Your task to perform on an android device: Go to notification settings Image 0: 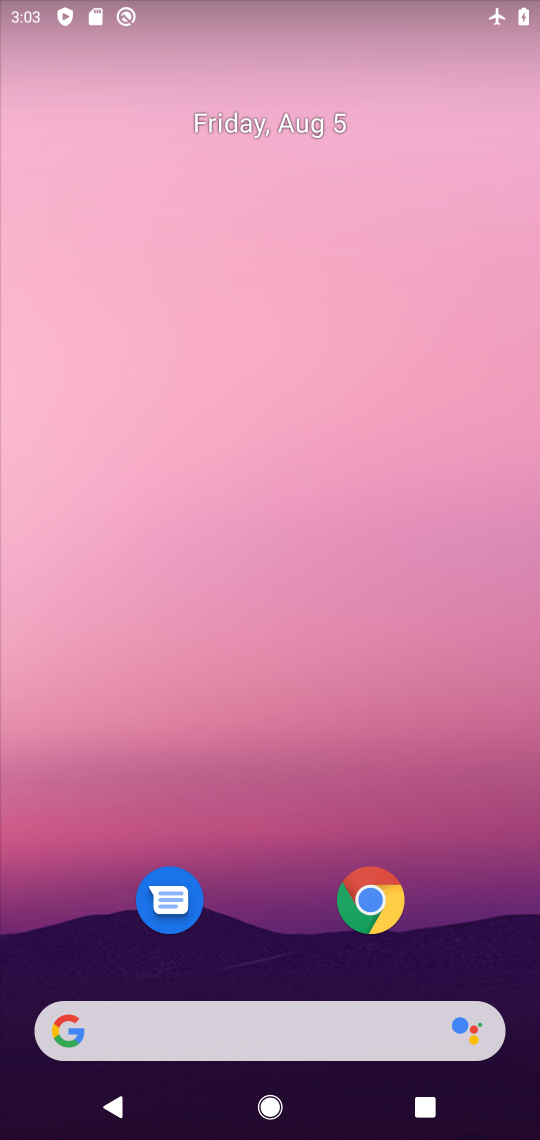
Step 0: press home button
Your task to perform on an android device: Go to notification settings Image 1: 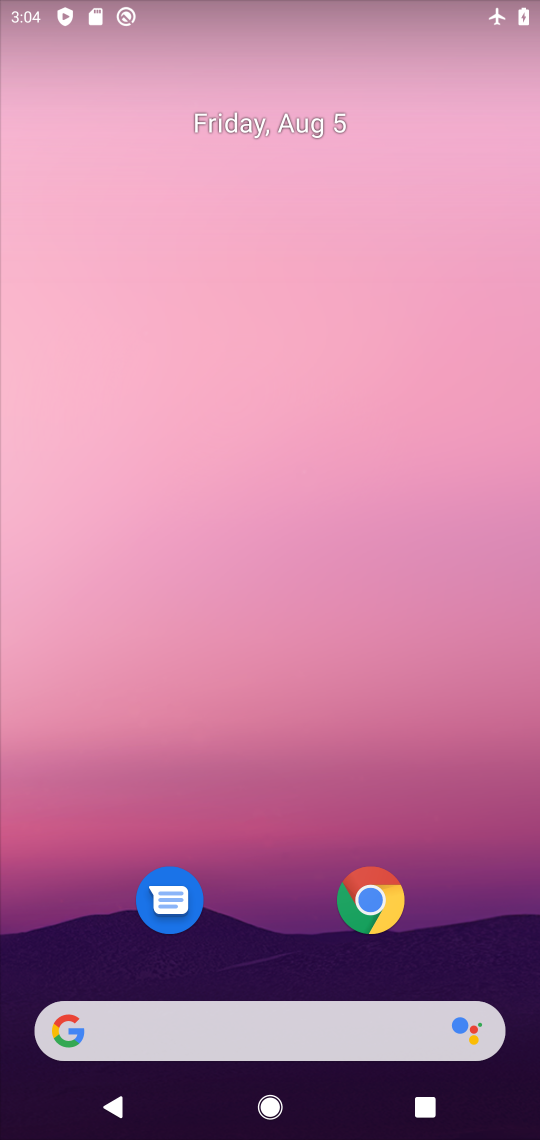
Step 1: drag from (279, 597) to (345, 14)
Your task to perform on an android device: Go to notification settings Image 2: 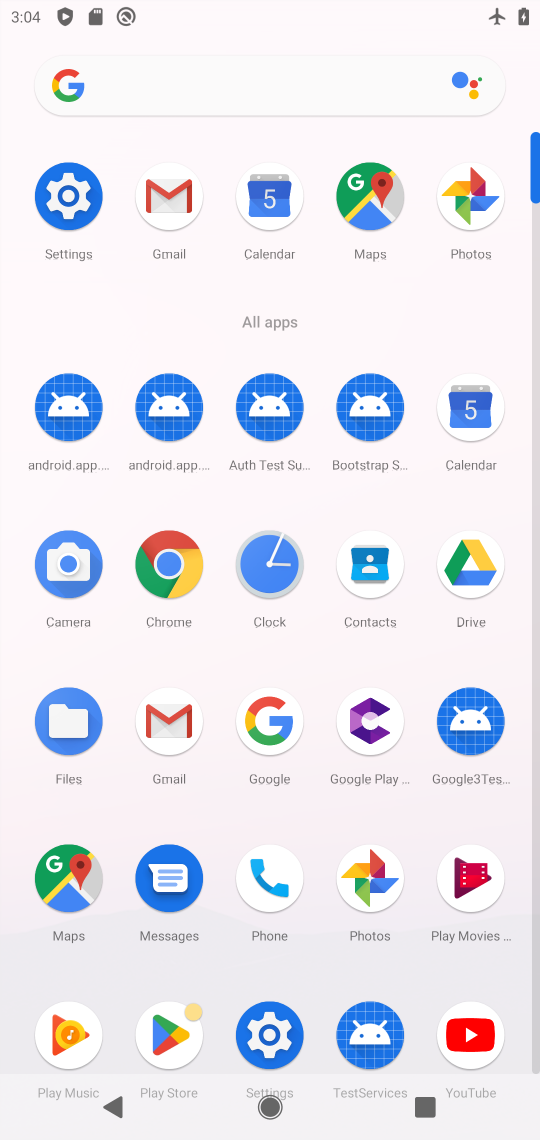
Step 2: click (70, 205)
Your task to perform on an android device: Go to notification settings Image 3: 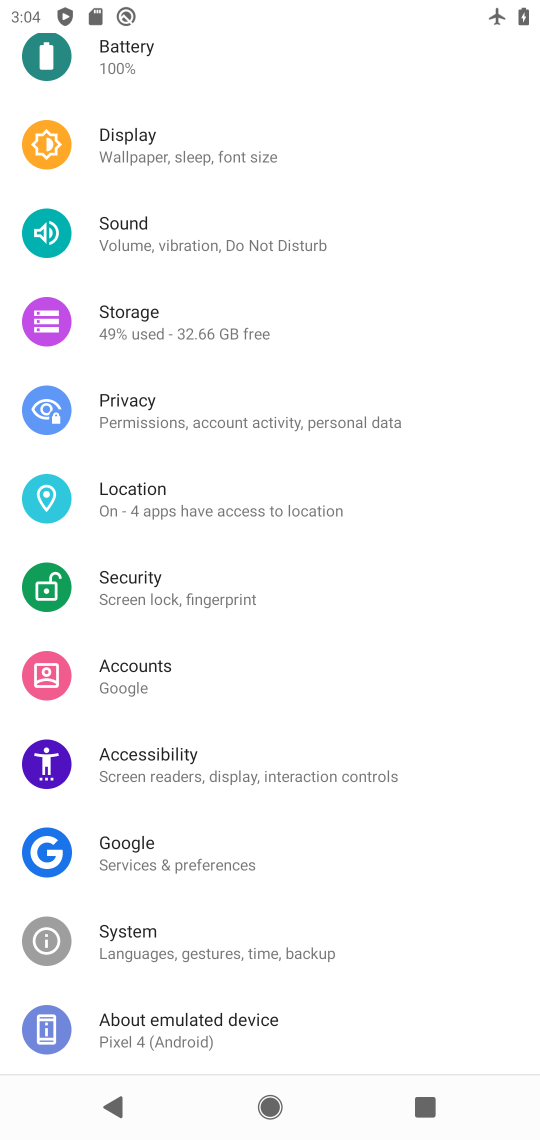
Step 3: drag from (387, 172) to (284, 827)
Your task to perform on an android device: Go to notification settings Image 4: 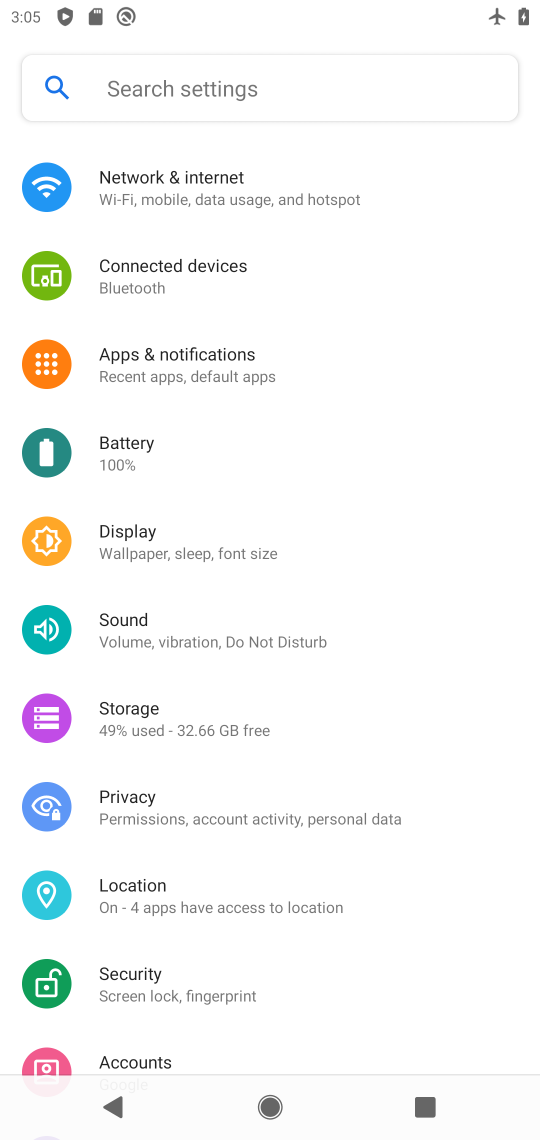
Step 4: click (173, 364)
Your task to perform on an android device: Go to notification settings Image 5: 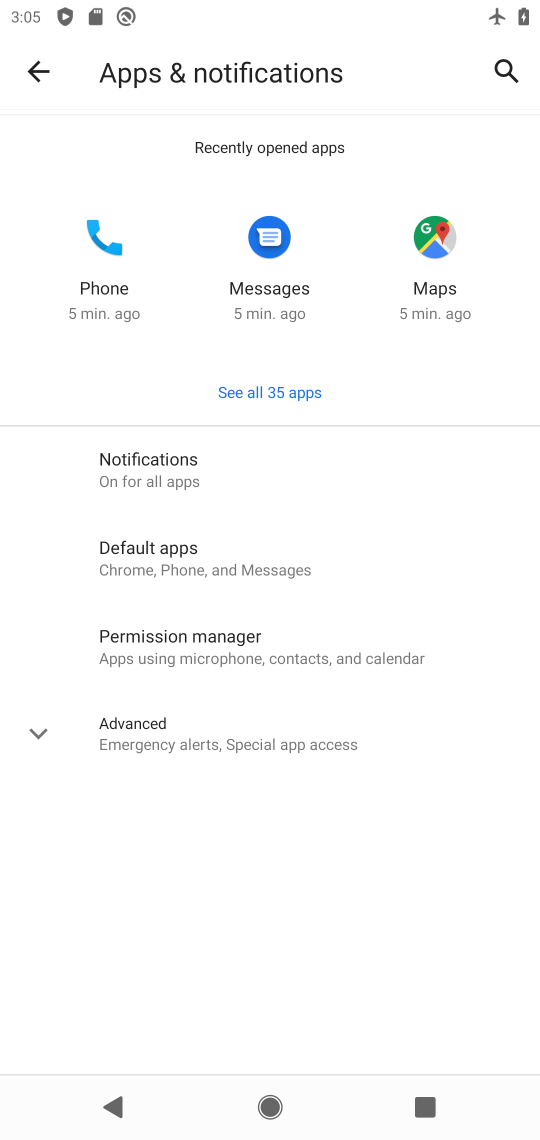
Step 5: click (122, 474)
Your task to perform on an android device: Go to notification settings Image 6: 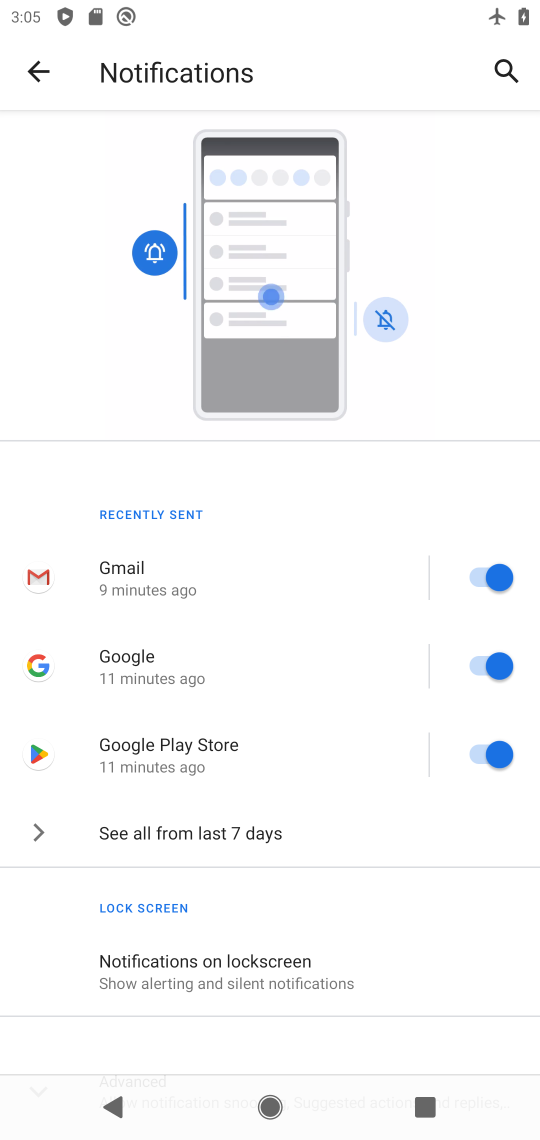
Step 6: task complete